Your task to perform on an android device: add a contact in the contacts app Image 0: 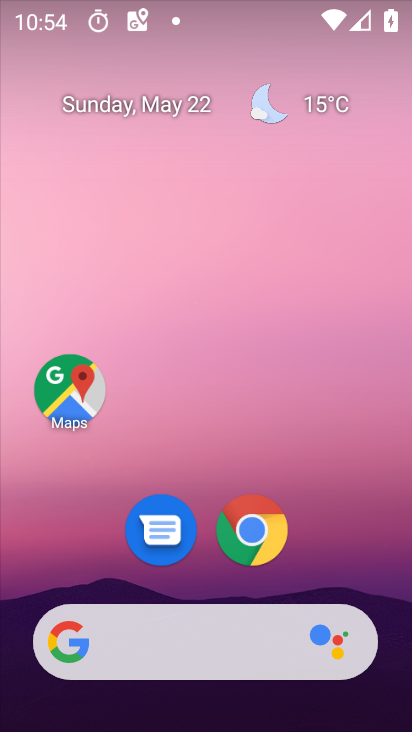
Step 0: drag from (399, 702) to (371, 201)
Your task to perform on an android device: add a contact in the contacts app Image 1: 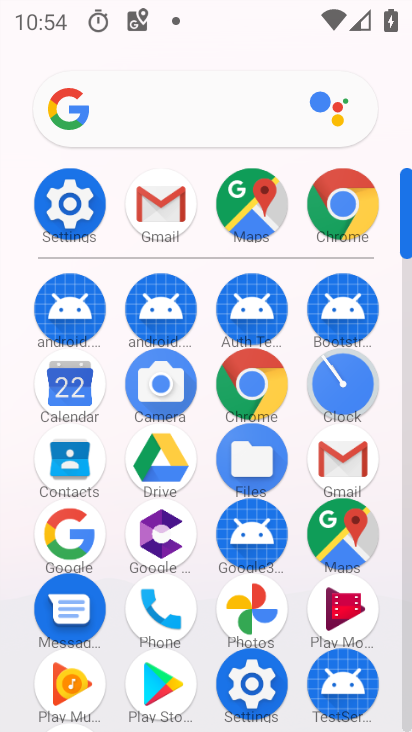
Step 1: click (72, 214)
Your task to perform on an android device: add a contact in the contacts app Image 2: 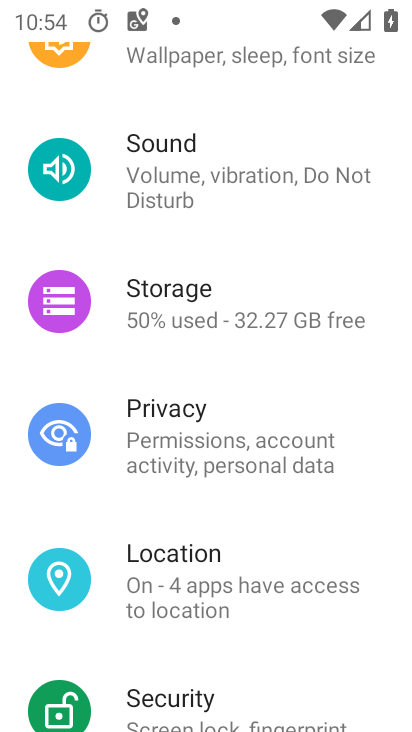
Step 2: press home button
Your task to perform on an android device: add a contact in the contacts app Image 3: 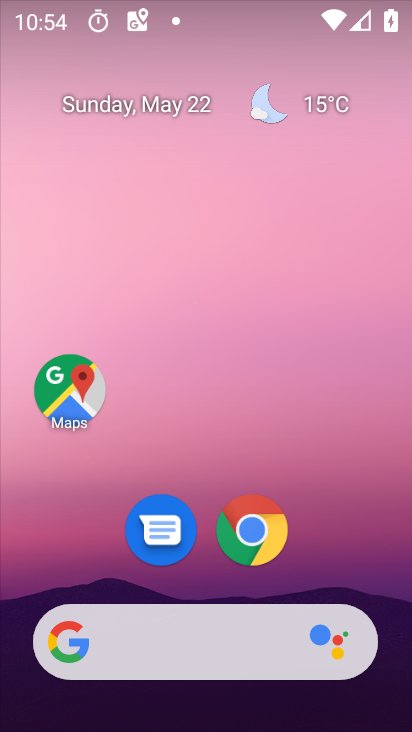
Step 3: drag from (392, 673) to (322, 80)
Your task to perform on an android device: add a contact in the contacts app Image 4: 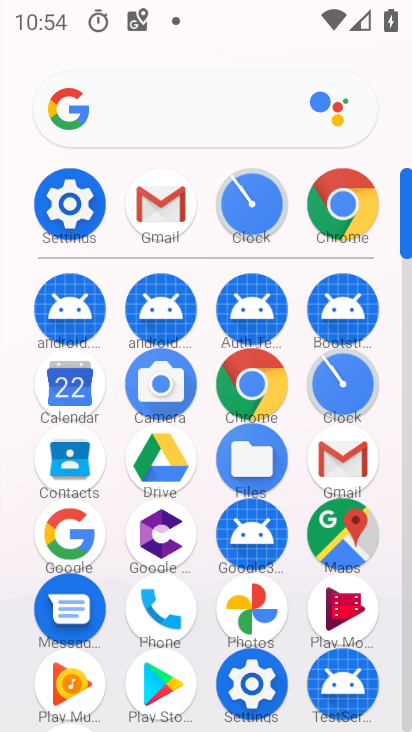
Step 4: click (68, 459)
Your task to perform on an android device: add a contact in the contacts app Image 5: 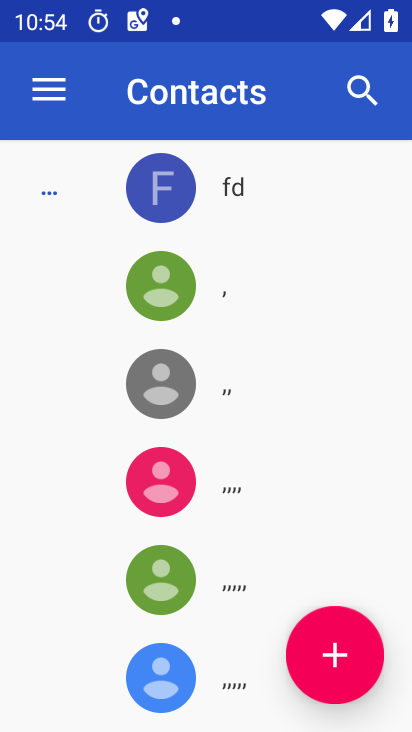
Step 5: click (338, 645)
Your task to perform on an android device: add a contact in the contacts app Image 6: 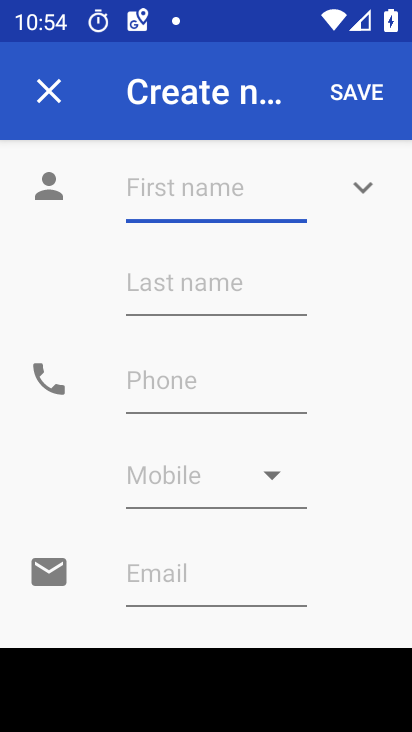
Step 6: type "tcnvjg nvj"
Your task to perform on an android device: add a contact in the contacts app Image 7: 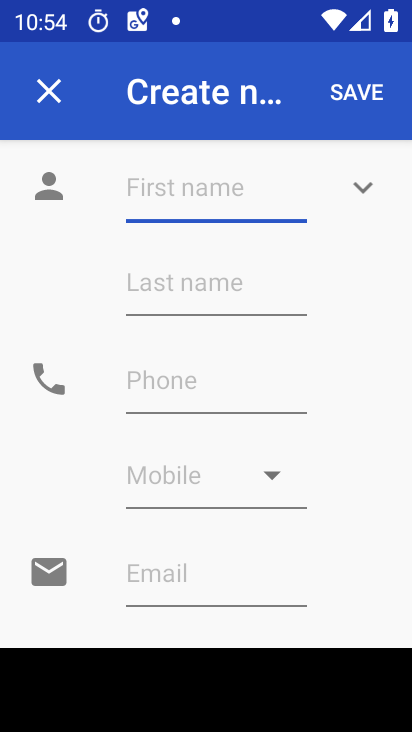
Step 7: click (218, 295)
Your task to perform on an android device: add a contact in the contacts app Image 8: 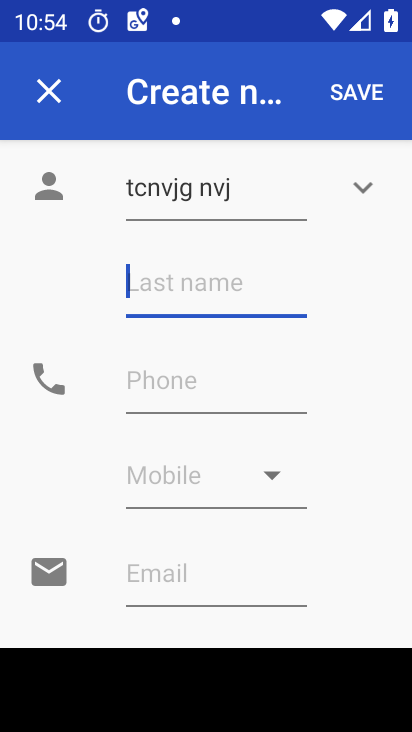
Step 8: type "rfhhvtupogsfsgjyu"
Your task to perform on an android device: add a contact in the contacts app Image 9: 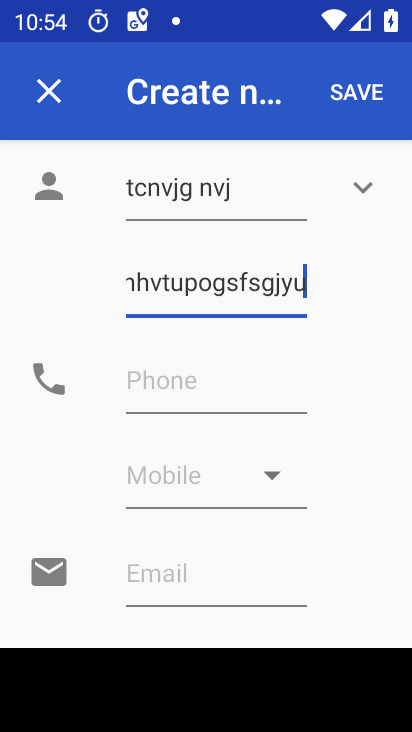
Step 9: click (146, 396)
Your task to perform on an android device: add a contact in the contacts app Image 10: 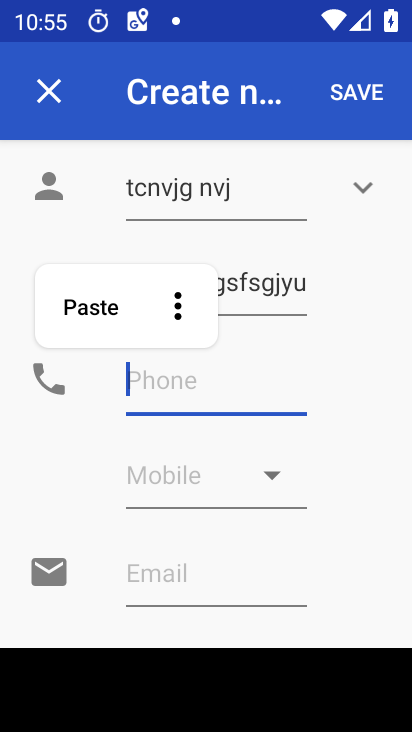
Step 10: type "767698753478"
Your task to perform on an android device: add a contact in the contacts app Image 11: 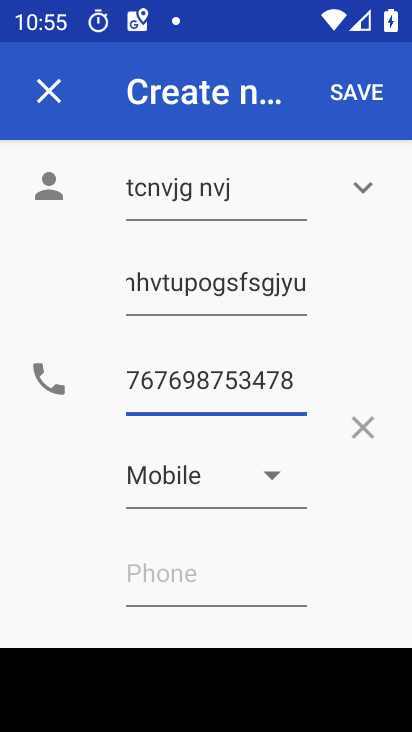
Step 11: click (355, 96)
Your task to perform on an android device: add a contact in the contacts app Image 12: 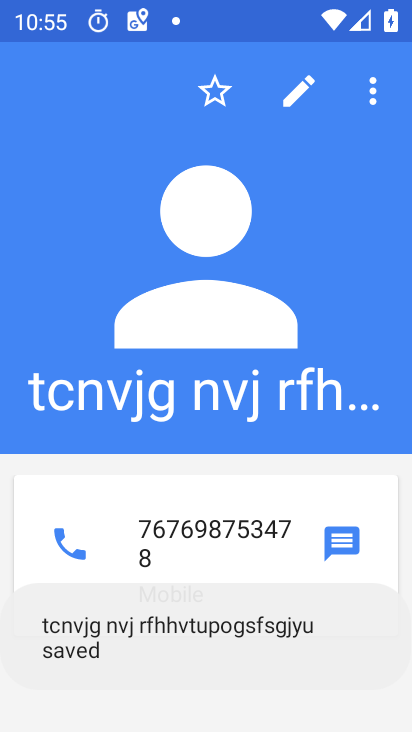
Step 12: task complete